Your task to perform on an android device: choose inbox layout in the gmail app Image 0: 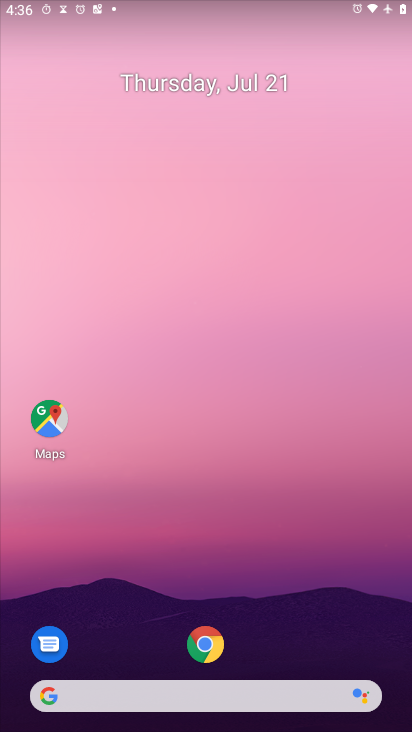
Step 0: press home button
Your task to perform on an android device: choose inbox layout in the gmail app Image 1: 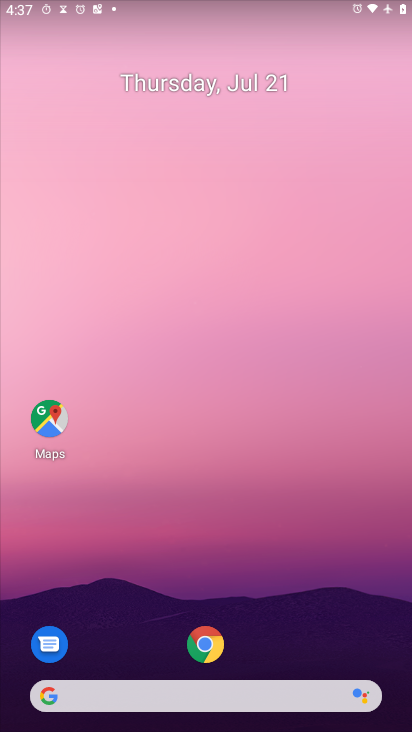
Step 1: drag from (334, 643) to (386, 32)
Your task to perform on an android device: choose inbox layout in the gmail app Image 2: 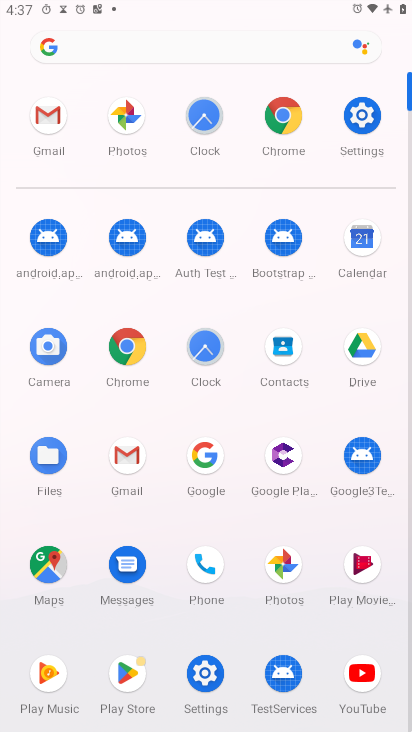
Step 2: click (42, 109)
Your task to perform on an android device: choose inbox layout in the gmail app Image 3: 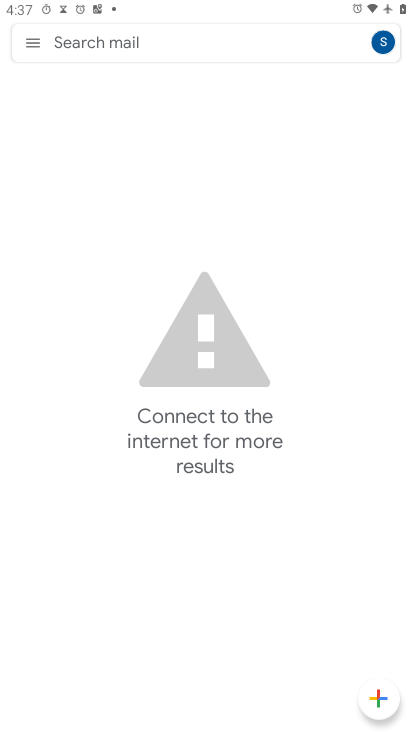
Step 3: click (35, 41)
Your task to perform on an android device: choose inbox layout in the gmail app Image 4: 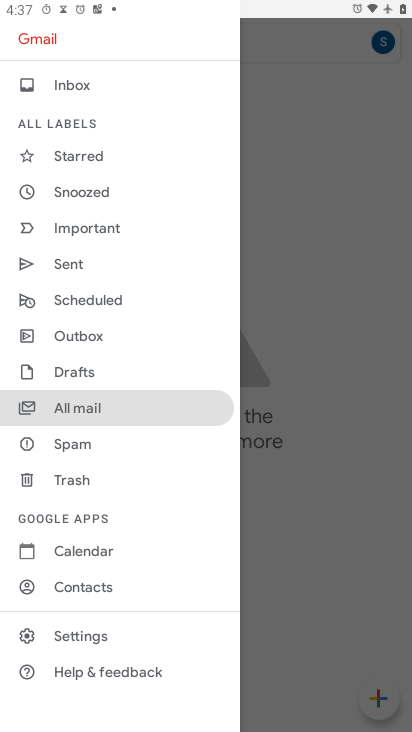
Step 4: click (70, 640)
Your task to perform on an android device: choose inbox layout in the gmail app Image 5: 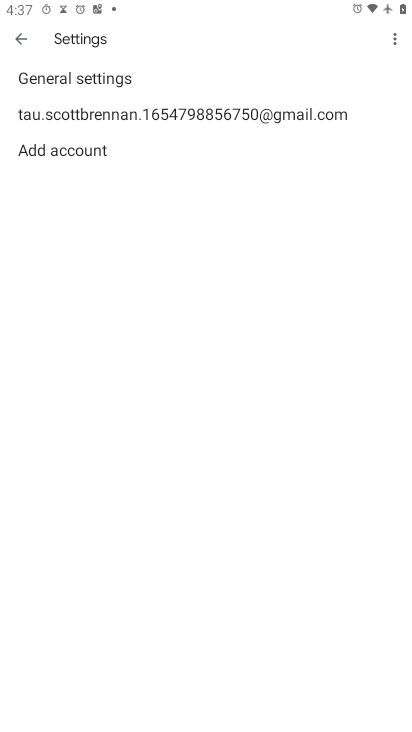
Step 5: click (165, 121)
Your task to perform on an android device: choose inbox layout in the gmail app Image 6: 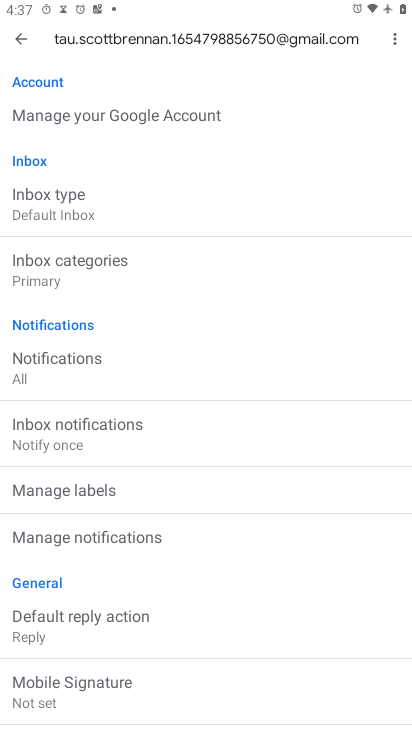
Step 6: click (47, 210)
Your task to perform on an android device: choose inbox layout in the gmail app Image 7: 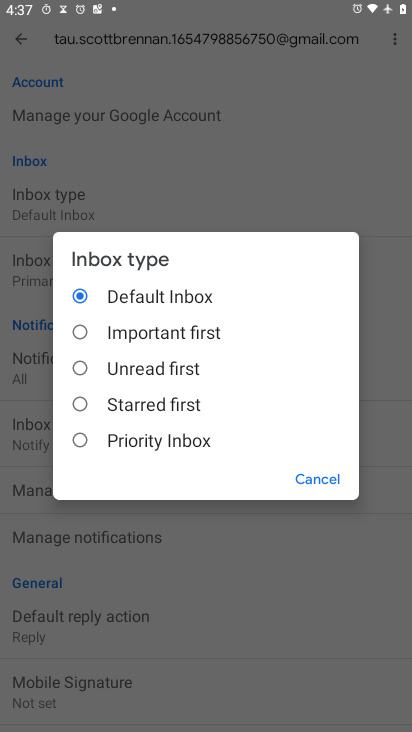
Step 7: click (85, 328)
Your task to perform on an android device: choose inbox layout in the gmail app Image 8: 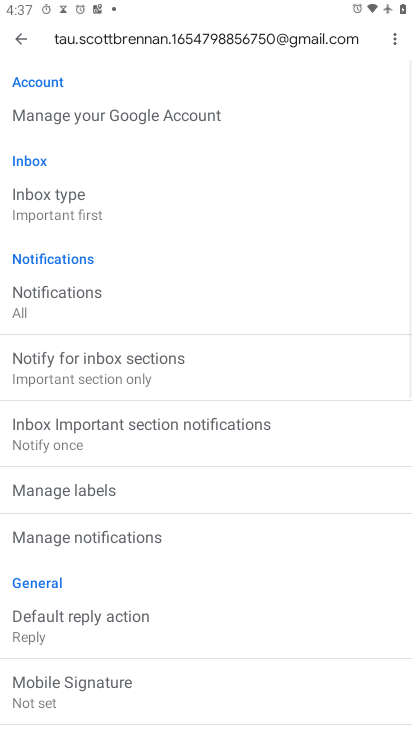
Step 8: task complete